Your task to perform on an android device: Go to Yahoo.com Image 0: 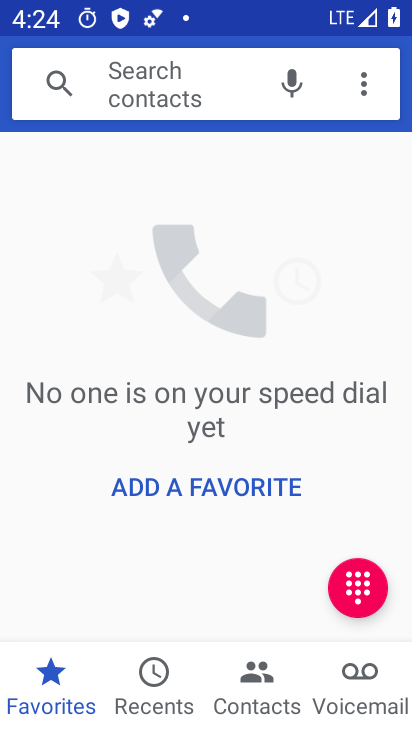
Step 0: press home button
Your task to perform on an android device: Go to Yahoo.com Image 1: 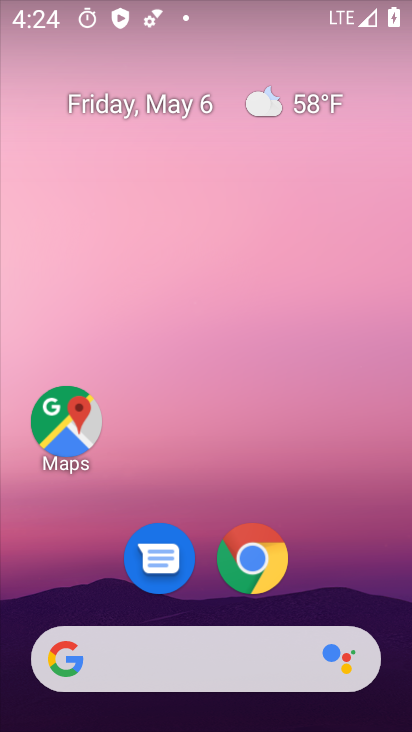
Step 1: drag from (307, 592) to (290, 0)
Your task to perform on an android device: Go to Yahoo.com Image 2: 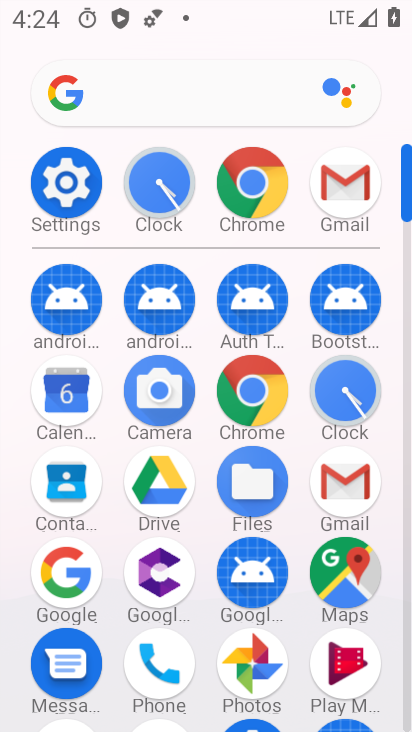
Step 2: click (245, 402)
Your task to perform on an android device: Go to Yahoo.com Image 3: 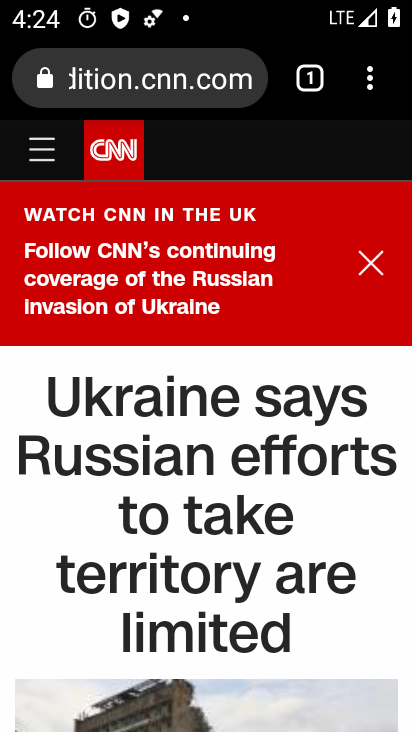
Step 3: click (214, 82)
Your task to perform on an android device: Go to Yahoo.com Image 4: 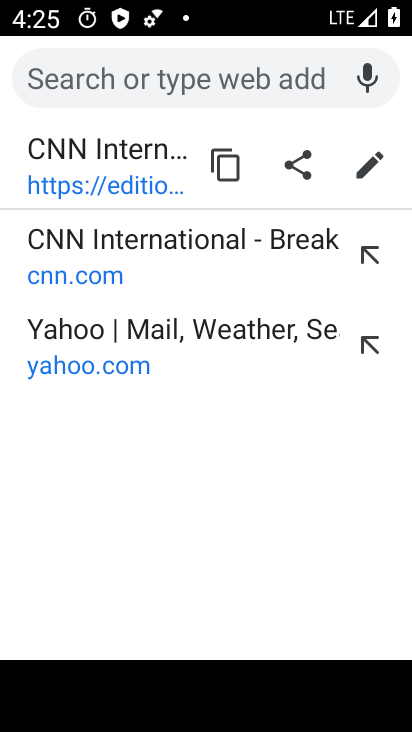
Step 4: type "yahoo.com"
Your task to perform on an android device: Go to Yahoo.com Image 5: 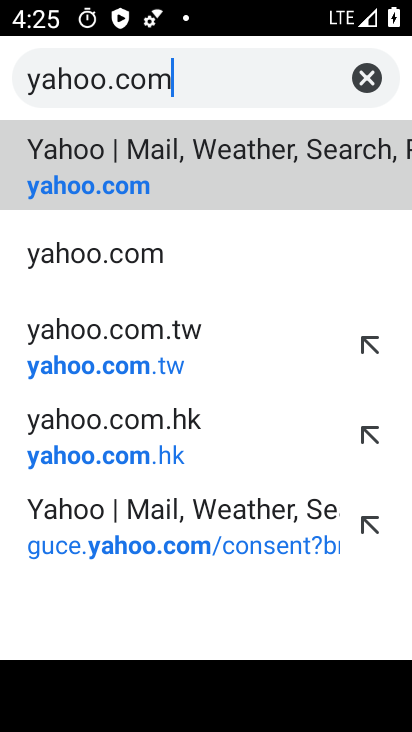
Step 5: click (153, 189)
Your task to perform on an android device: Go to Yahoo.com Image 6: 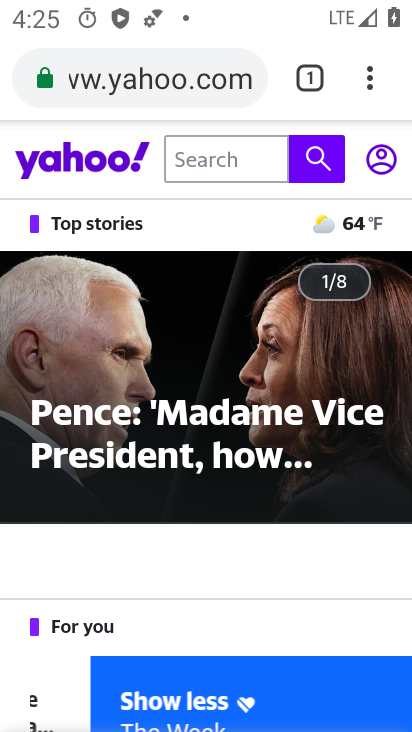
Step 6: task complete